Your task to perform on an android device: Show me popular games on the Play Store Image 0: 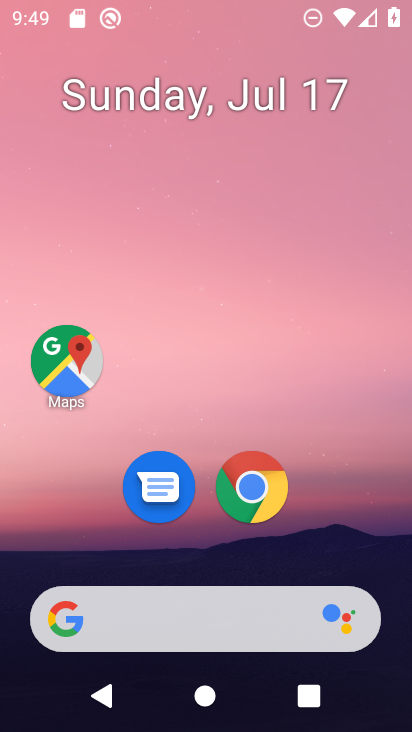
Step 0: press home button
Your task to perform on an android device: Show me popular games on the Play Store Image 1: 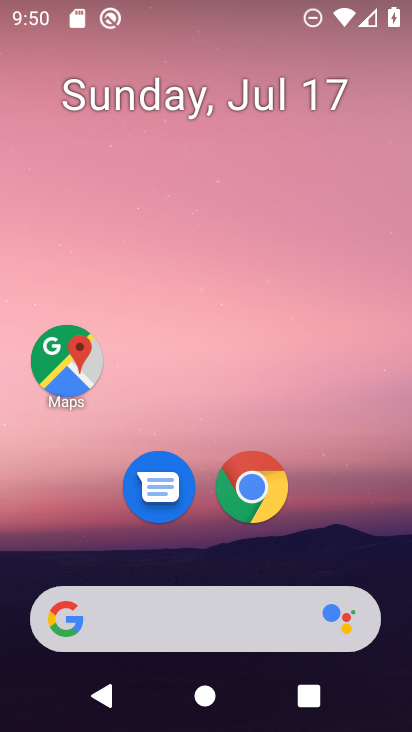
Step 1: drag from (345, 503) to (72, 0)
Your task to perform on an android device: Show me popular games on the Play Store Image 2: 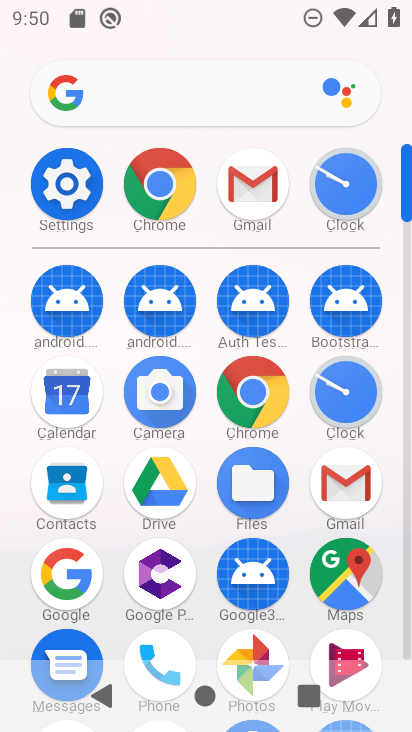
Step 2: drag from (378, 620) to (354, 192)
Your task to perform on an android device: Show me popular games on the Play Store Image 3: 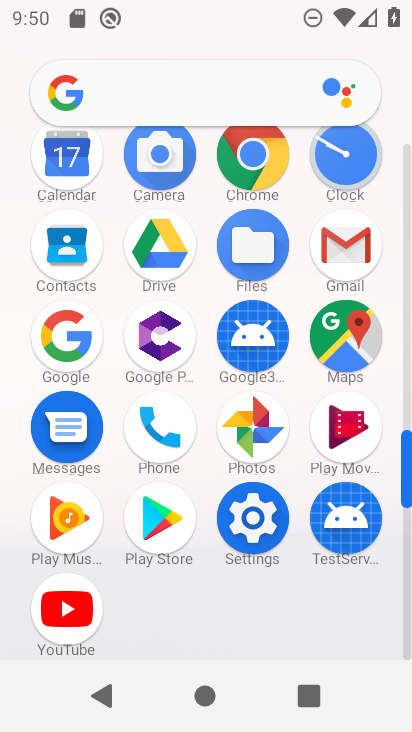
Step 3: click (164, 519)
Your task to perform on an android device: Show me popular games on the Play Store Image 4: 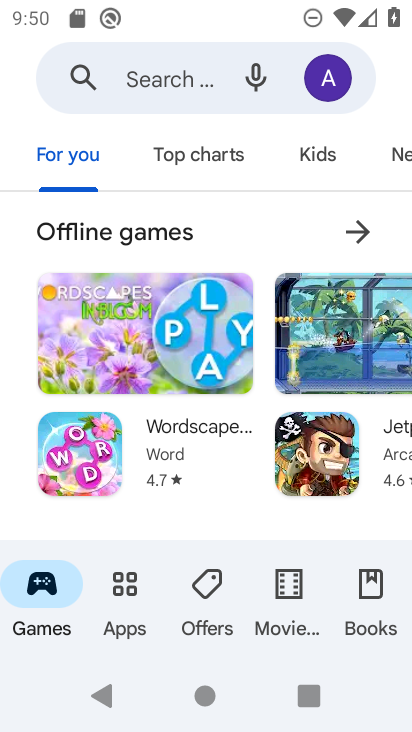
Step 4: click (48, 596)
Your task to perform on an android device: Show me popular games on the Play Store Image 5: 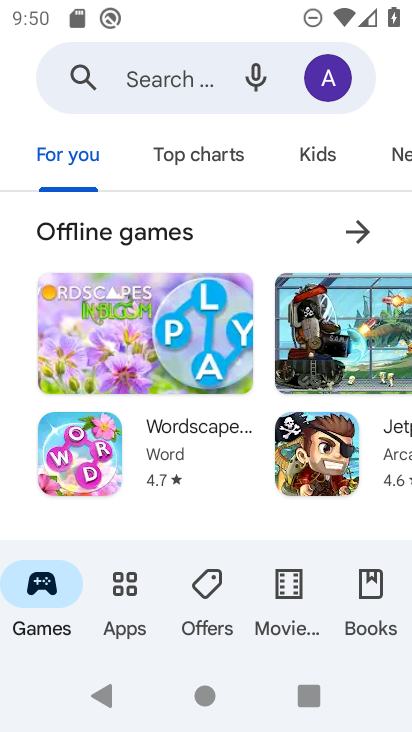
Step 5: drag from (333, 161) to (60, 149)
Your task to perform on an android device: Show me popular games on the Play Store Image 6: 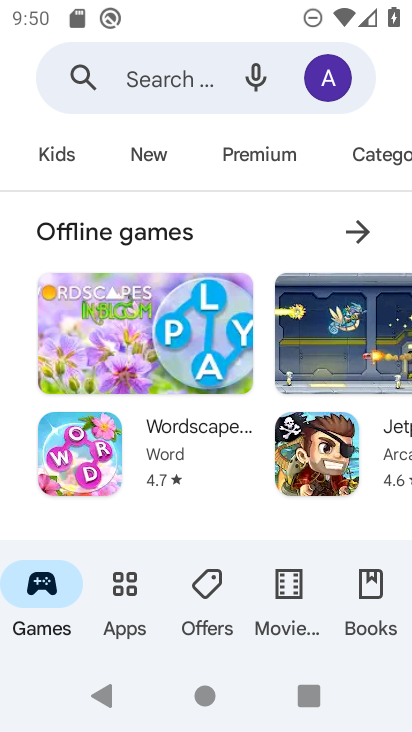
Step 6: click (361, 164)
Your task to perform on an android device: Show me popular games on the Play Store Image 7: 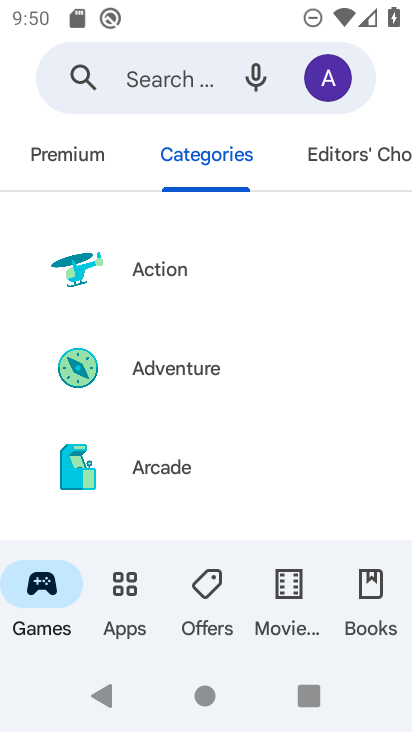
Step 7: task complete